Your task to perform on an android device: read, delete, or share a saved page in the chrome app Image 0: 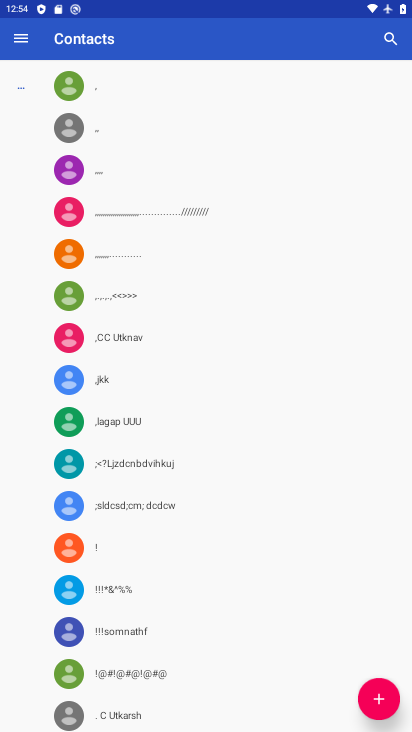
Step 0: press home button
Your task to perform on an android device: read, delete, or share a saved page in the chrome app Image 1: 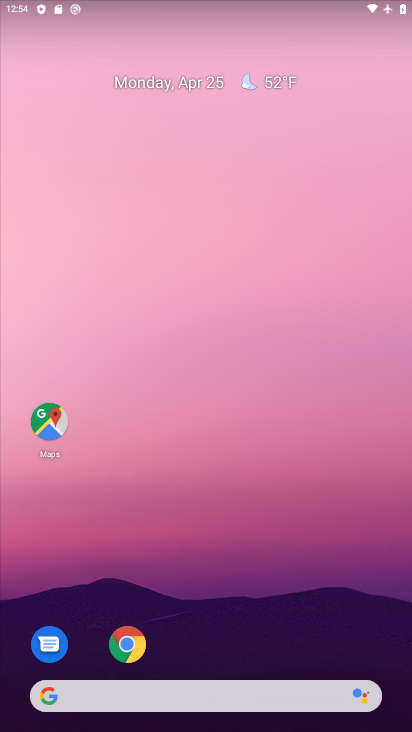
Step 1: click (119, 638)
Your task to perform on an android device: read, delete, or share a saved page in the chrome app Image 2: 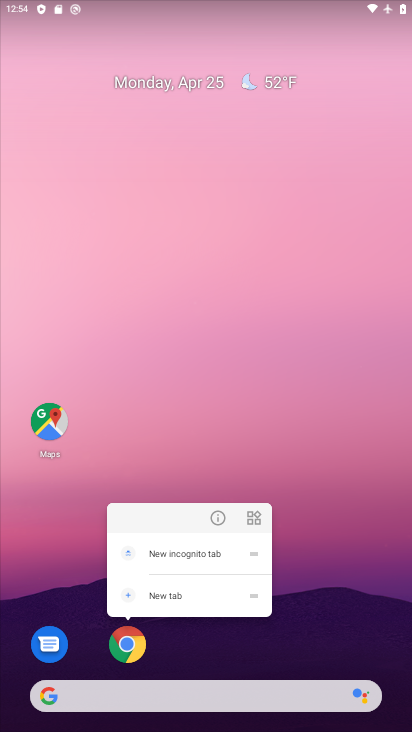
Step 2: click (119, 653)
Your task to perform on an android device: read, delete, or share a saved page in the chrome app Image 3: 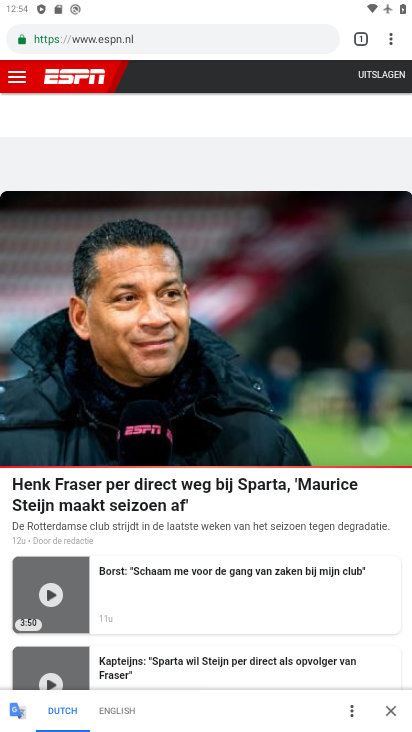
Step 3: click (387, 44)
Your task to perform on an android device: read, delete, or share a saved page in the chrome app Image 4: 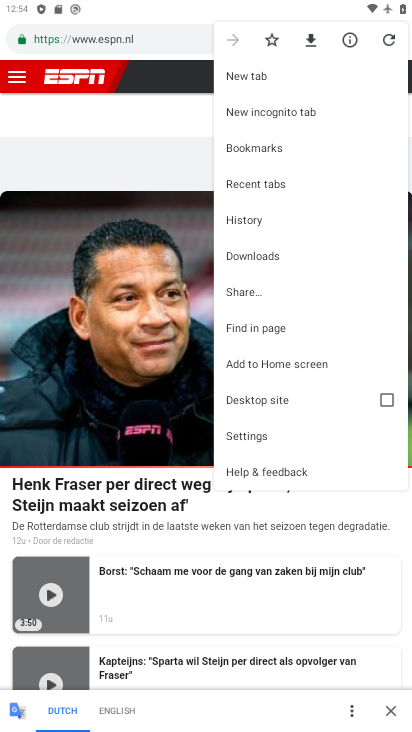
Step 4: click (273, 255)
Your task to perform on an android device: read, delete, or share a saved page in the chrome app Image 5: 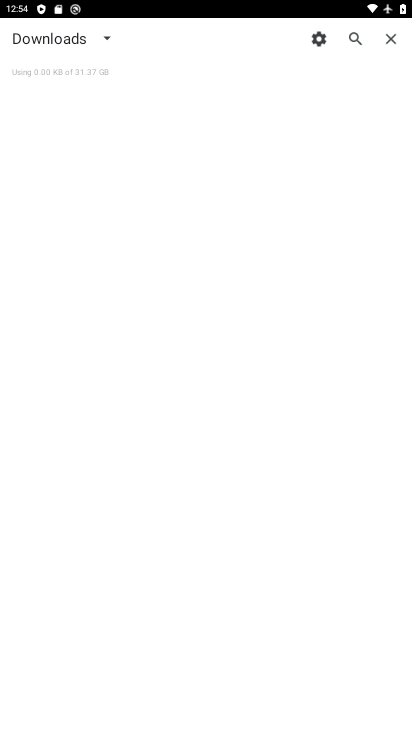
Step 5: task complete